Your task to perform on an android device: delete the emails in spam in the gmail app Image 0: 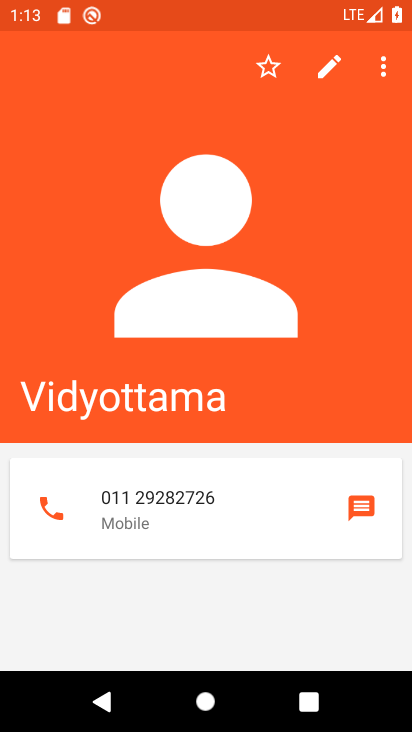
Step 0: press home button
Your task to perform on an android device: delete the emails in spam in the gmail app Image 1: 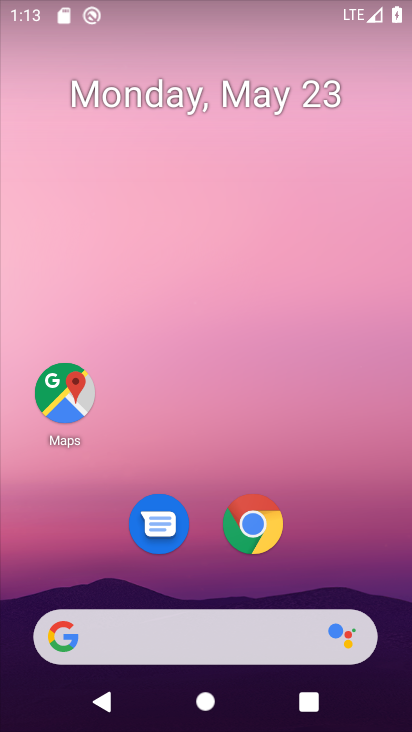
Step 1: drag from (190, 457) to (142, 7)
Your task to perform on an android device: delete the emails in spam in the gmail app Image 2: 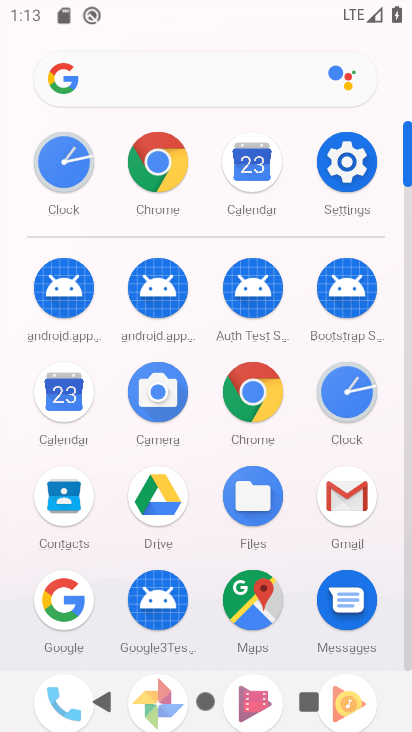
Step 2: click (337, 485)
Your task to perform on an android device: delete the emails in spam in the gmail app Image 3: 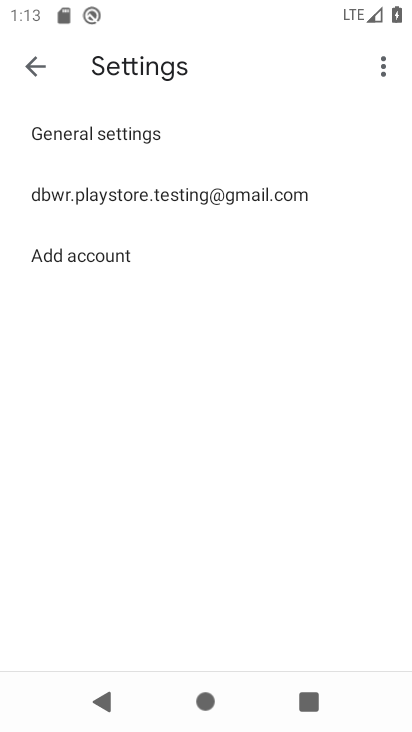
Step 3: click (36, 59)
Your task to perform on an android device: delete the emails in spam in the gmail app Image 4: 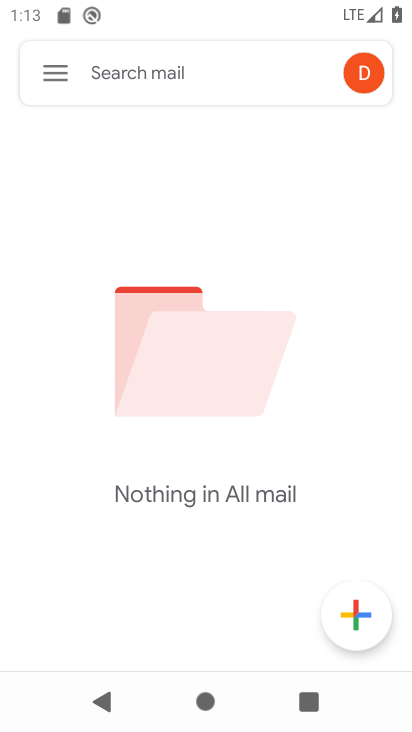
Step 4: click (58, 74)
Your task to perform on an android device: delete the emails in spam in the gmail app Image 5: 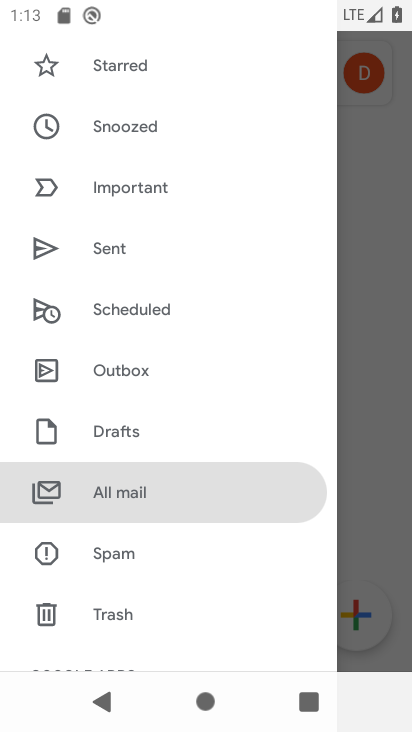
Step 5: click (131, 547)
Your task to perform on an android device: delete the emails in spam in the gmail app Image 6: 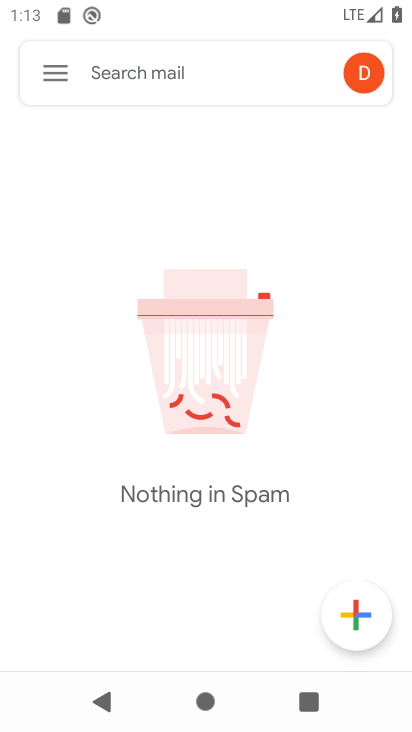
Step 6: task complete